Your task to perform on an android device: open chrome privacy settings Image 0: 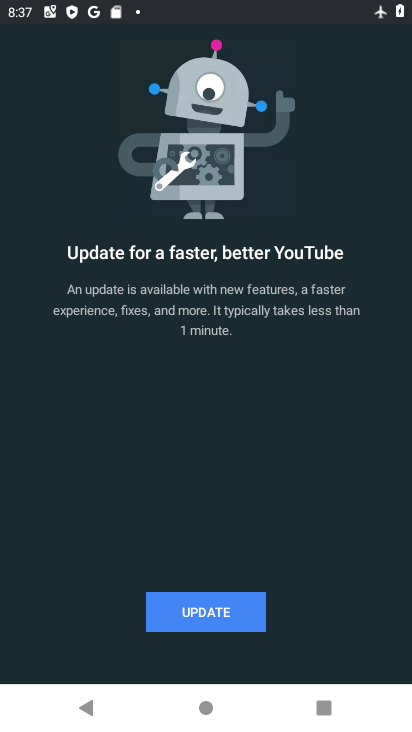
Step 0: press home button
Your task to perform on an android device: open chrome privacy settings Image 1: 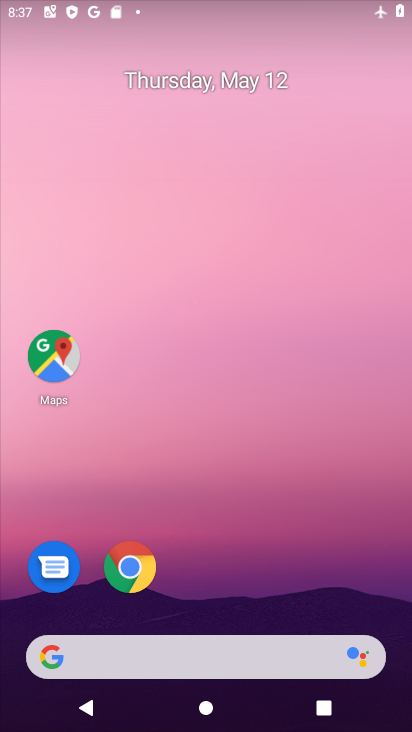
Step 1: drag from (193, 685) to (163, 296)
Your task to perform on an android device: open chrome privacy settings Image 2: 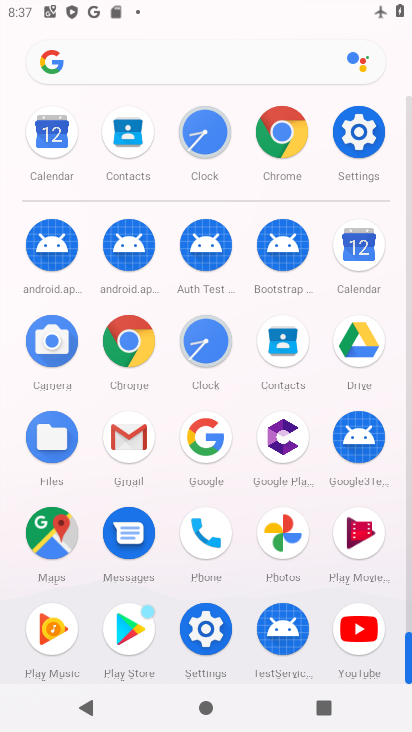
Step 2: click (298, 150)
Your task to perform on an android device: open chrome privacy settings Image 3: 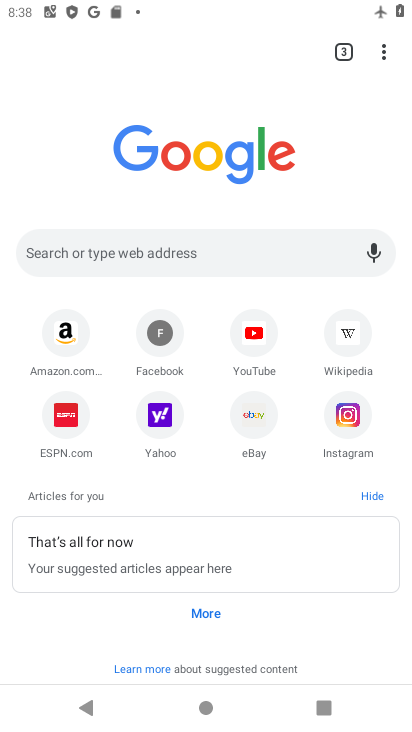
Step 3: click (388, 58)
Your task to perform on an android device: open chrome privacy settings Image 4: 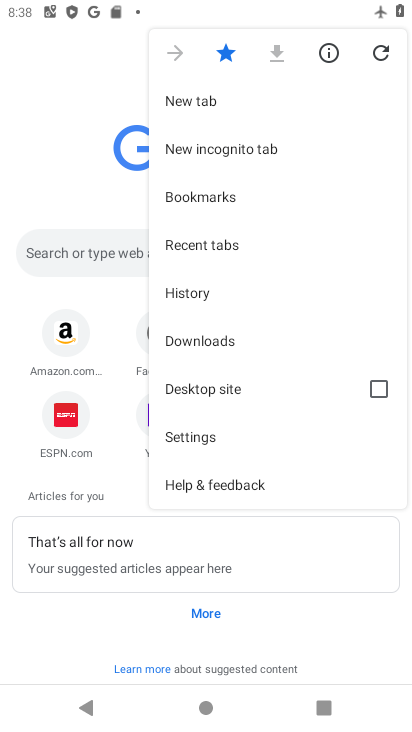
Step 4: click (226, 444)
Your task to perform on an android device: open chrome privacy settings Image 5: 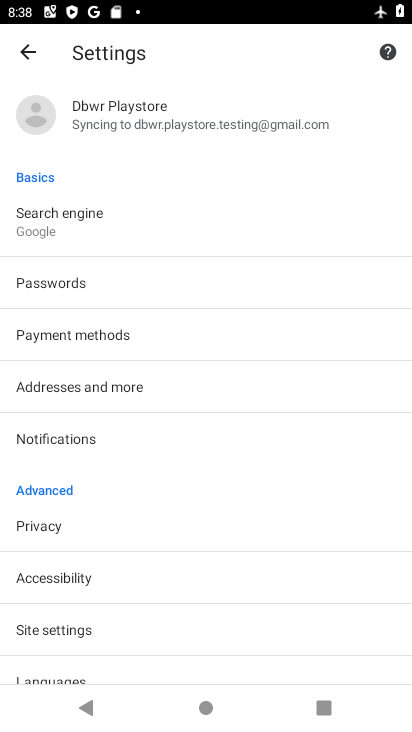
Step 5: drag from (101, 527) to (137, 374)
Your task to perform on an android device: open chrome privacy settings Image 6: 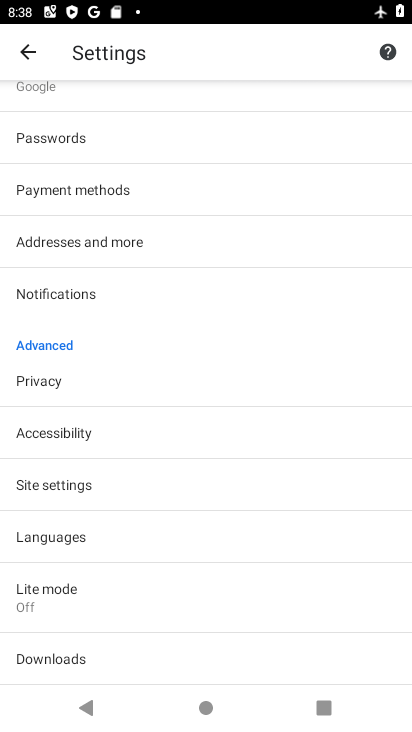
Step 6: click (54, 388)
Your task to perform on an android device: open chrome privacy settings Image 7: 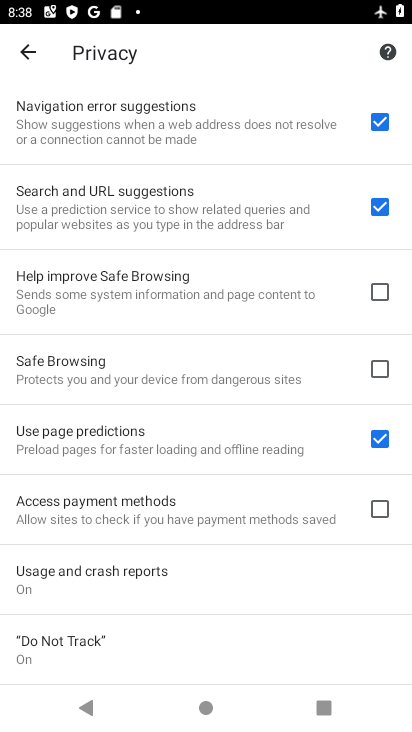
Step 7: task complete